Your task to perform on an android device: find snoozed emails in the gmail app Image 0: 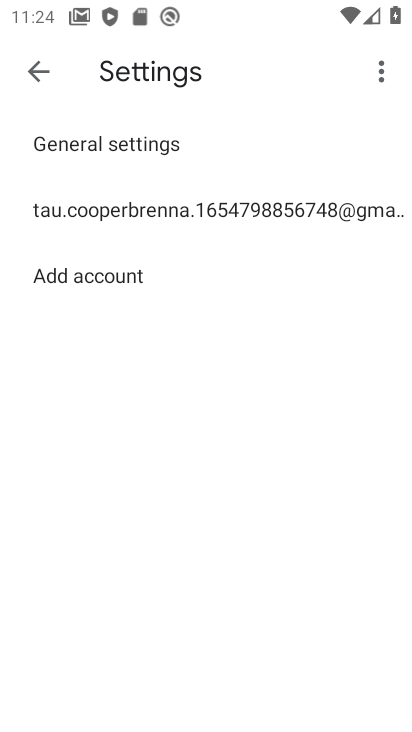
Step 0: press home button
Your task to perform on an android device: find snoozed emails in the gmail app Image 1: 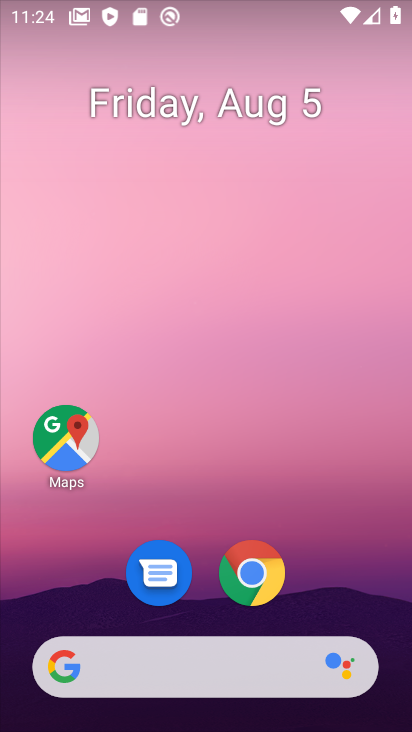
Step 1: drag from (188, 526) to (243, 217)
Your task to perform on an android device: find snoozed emails in the gmail app Image 2: 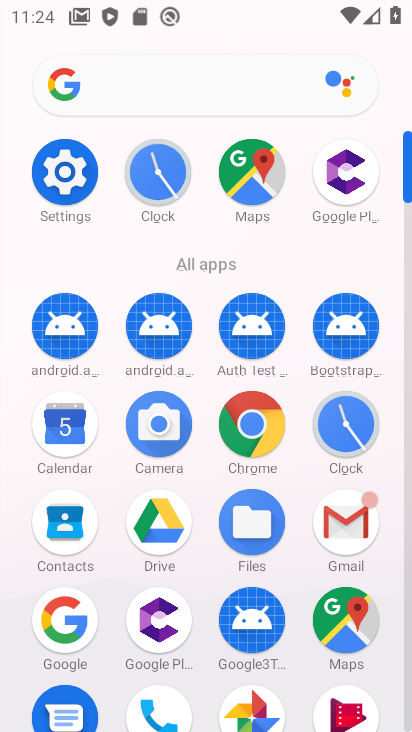
Step 2: click (340, 524)
Your task to perform on an android device: find snoozed emails in the gmail app Image 3: 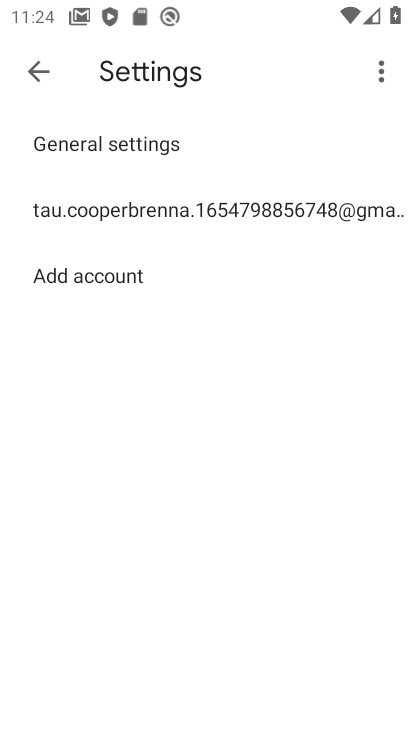
Step 3: click (36, 68)
Your task to perform on an android device: find snoozed emails in the gmail app Image 4: 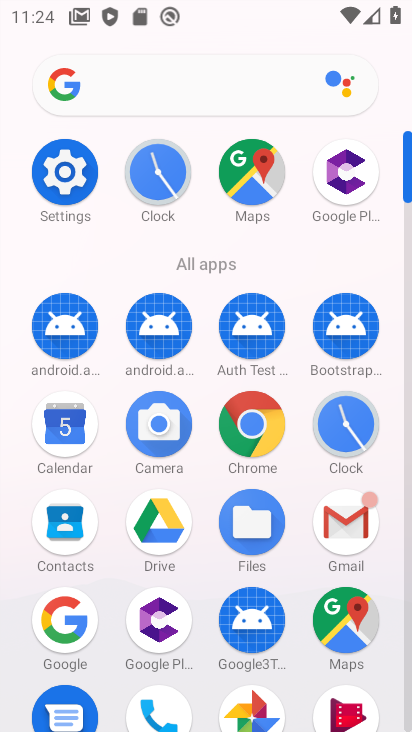
Step 4: task complete